Your task to perform on an android device: turn vacation reply on in the gmail app Image 0: 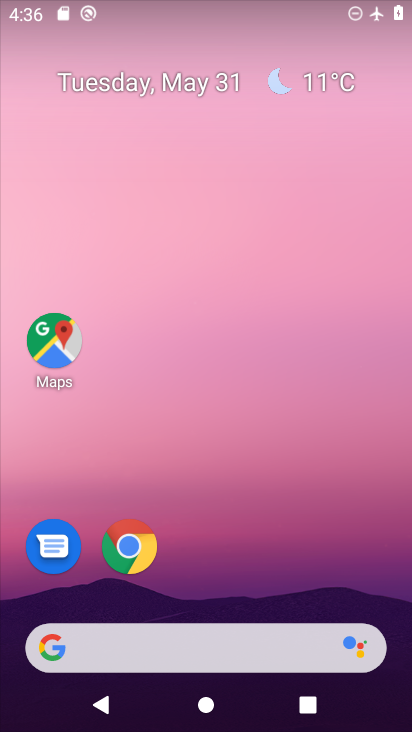
Step 0: drag from (295, 541) to (161, 3)
Your task to perform on an android device: turn vacation reply on in the gmail app Image 1: 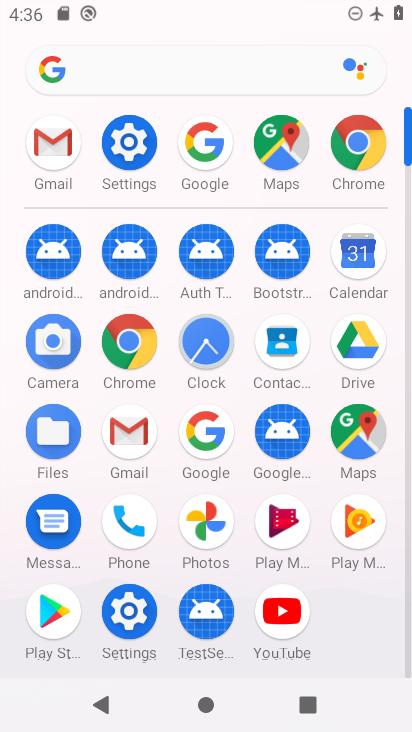
Step 1: click (62, 147)
Your task to perform on an android device: turn vacation reply on in the gmail app Image 2: 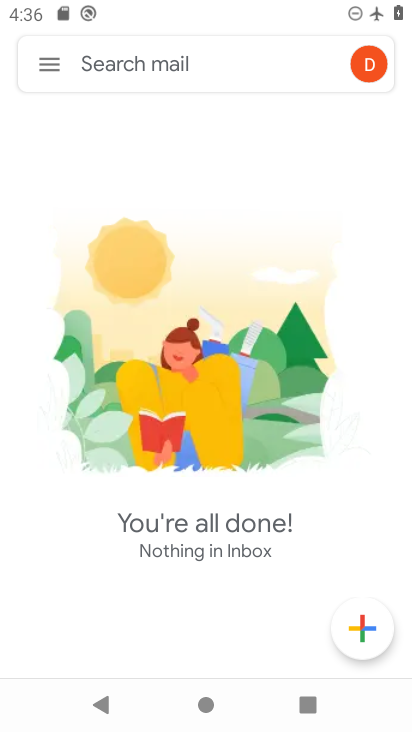
Step 2: click (63, 55)
Your task to perform on an android device: turn vacation reply on in the gmail app Image 3: 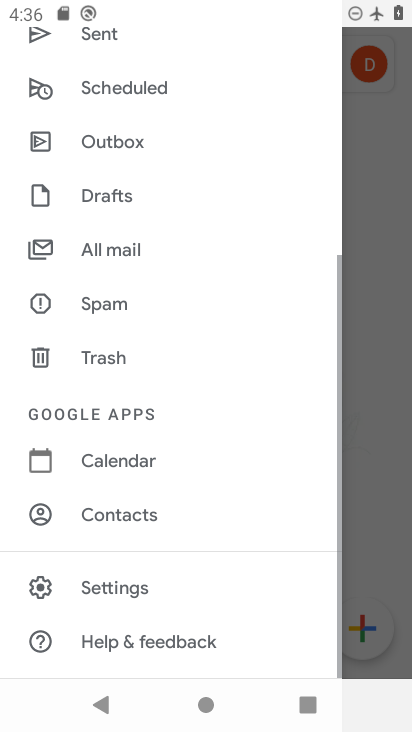
Step 3: drag from (245, 565) to (178, 132)
Your task to perform on an android device: turn vacation reply on in the gmail app Image 4: 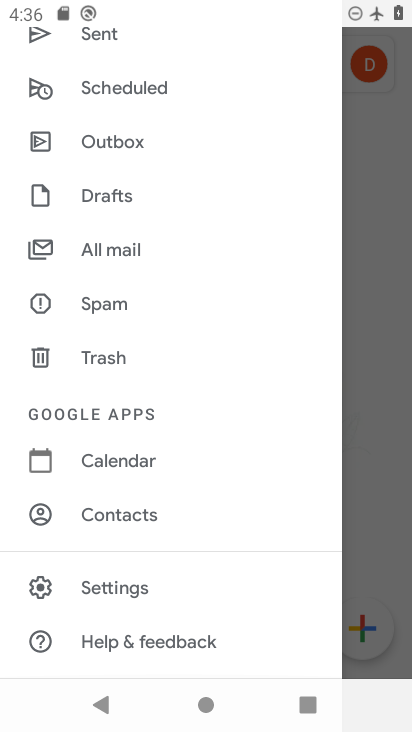
Step 4: click (136, 591)
Your task to perform on an android device: turn vacation reply on in the gmail app Image 5: 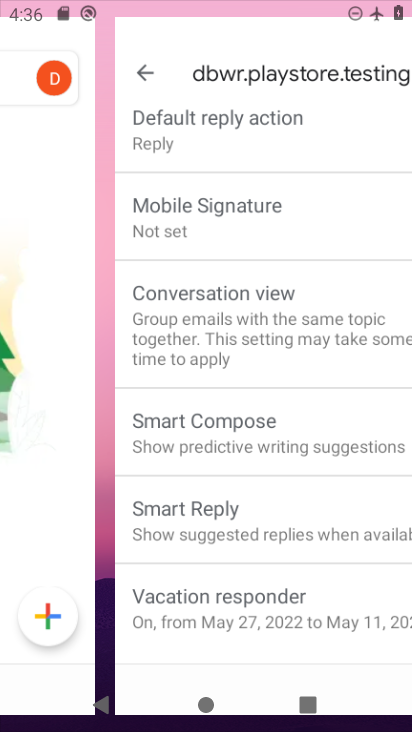
Step 5: drag from (208, 544) to (228, 89)
Your task to perform on an android device: turn vacation reply on in the gmail app Image 6: 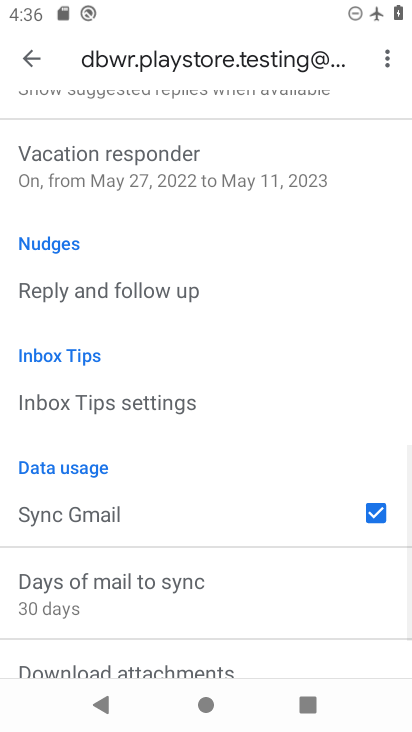
Step 6: drag from (219, 307) to (228, 503)
Your task to perform on an android device: turn vacation reply on in the gmail app Image 7: 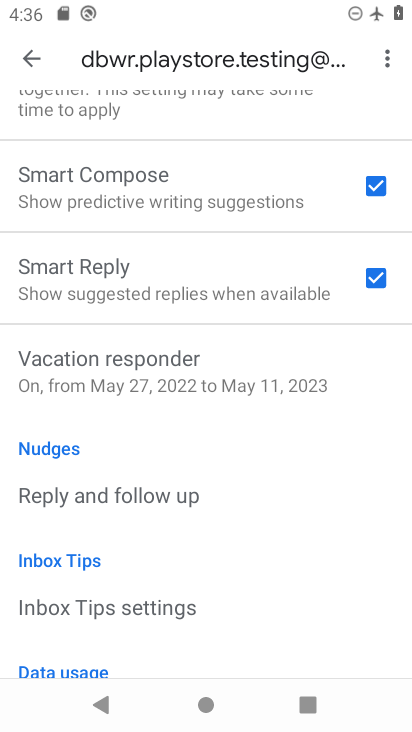
Step 7: click (211, 370)
Your task to perform on an android device: turn vacation reply on in the gmail app Image 8: 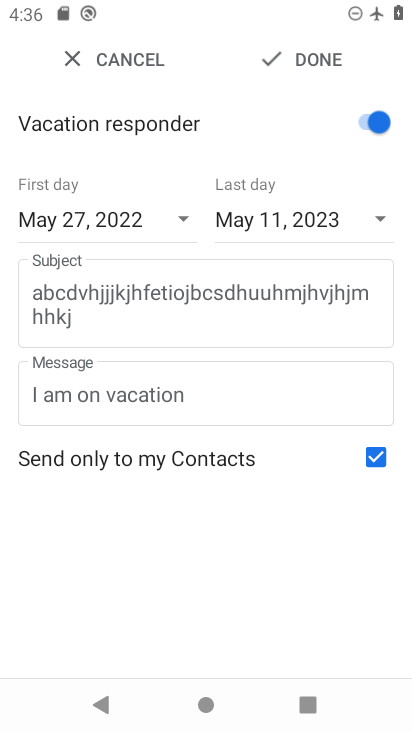
Step 8: click (320, 56)
Your task to perform on an android device: turn vacation reply on in the gmail app Image 9: 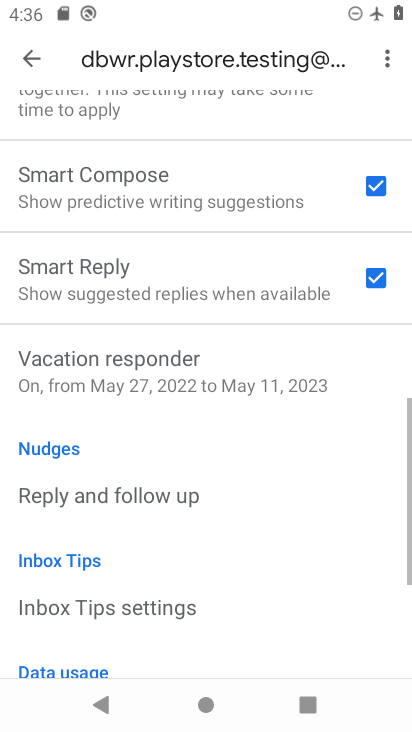
Step 9: task complete